Your task to perform on an android device: Add "bose soundlink mini" to the cart on target.com, then select checkout. Image 0: 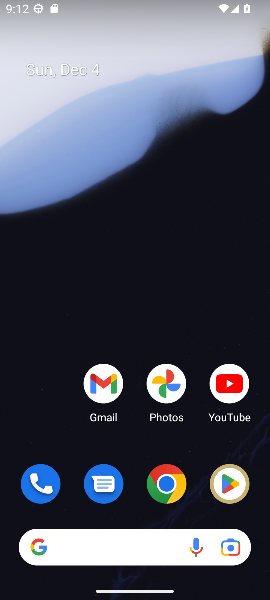
Step 0: click (161, 490)
Your task to perform on an android device: Add "bose soundlink mini" to the cart on target.com, then select checkout. Image 1: 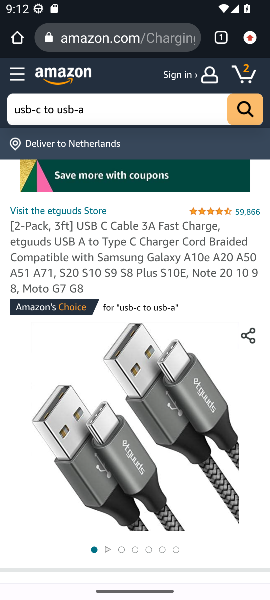
Step 1: click (96, 42)
Your task to perform on an android device: Add "bose soundlink mini" to the cart on target.com, then select checkout. Image 2: 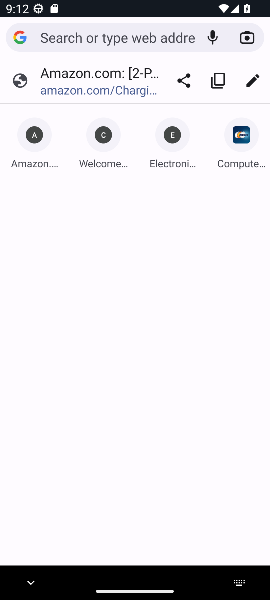
Step 2: type "target.com"
Your task to perform on an android device: Add "bose soundlink mini" to the cart on target.com, then select checkout. Image 3: 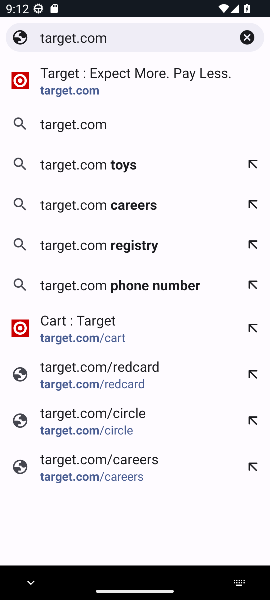
Step 3: click (74, 85)
Your task to perform on an android device: Add "bose soundlink mini" to the cart on target.com, then select checkout. Image 4: 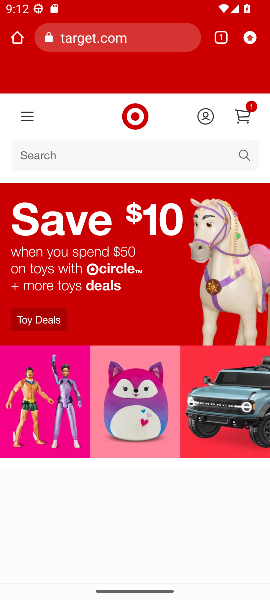
Step 4: click (34, 157)
Your task to perform on an android device: Add "bose soundlink mini" to the cart on target.com, then select checkout. Image 5: 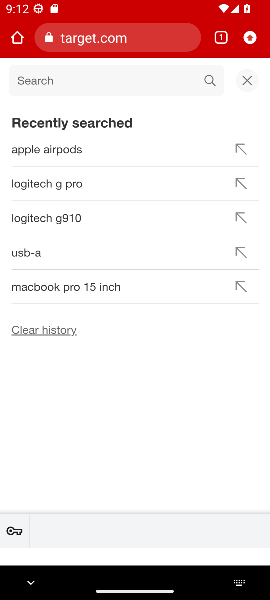
Step 5: type "bose soundlink mini"
Your task to perform on an android device: Add "bose soundlink mini" to the cart on target.com, then select checkout. Image 6: 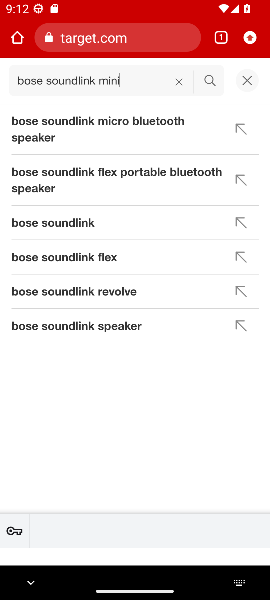
Step 6: click (208, 82)
Your task to perform on an android device: Add "bose soundlink mini" to the cart on target.com, then select checkout. Image 7: 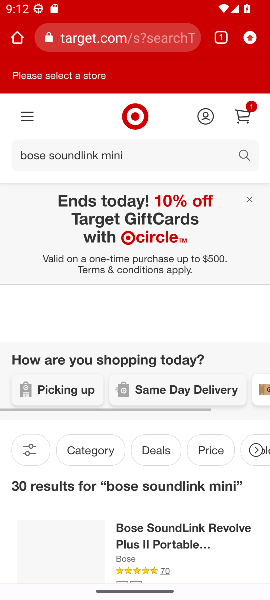
Step 7: task complete